Your task to perform on an android device: Open eBay Image 0: 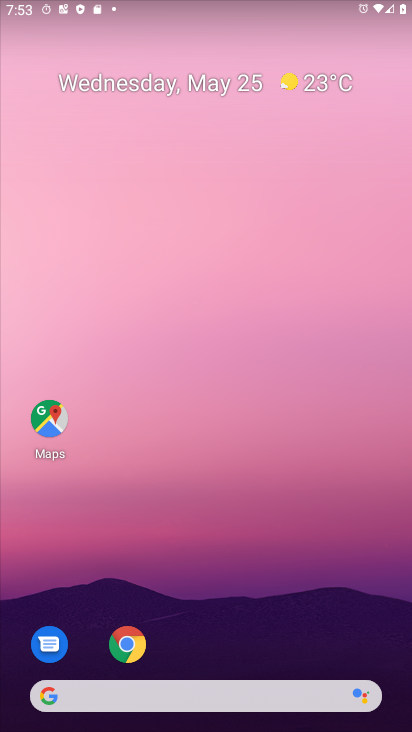
Step 0: press home button
Your task to perform on an android device: Open eBay Image 1: 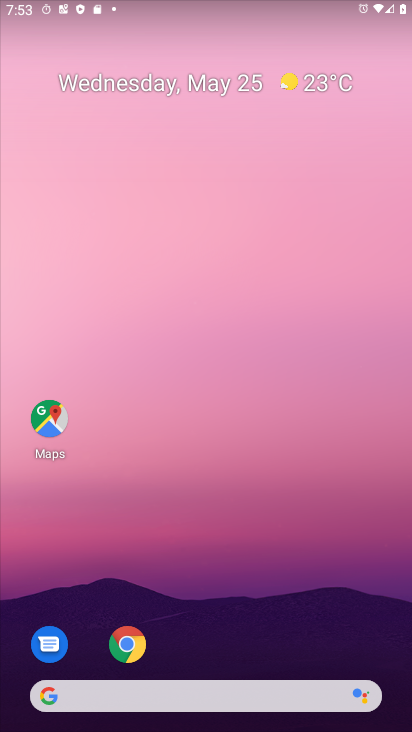
Step 1: drag from (234, 703) to (127, 124)
Your task to perform on an android device: Open eBay Image 2: 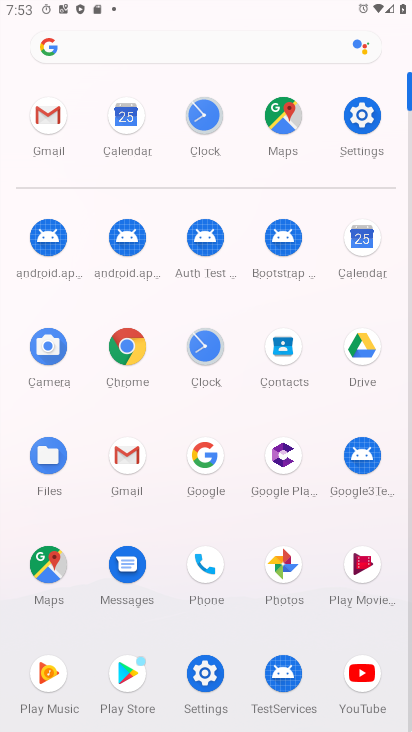
Step 2: click (129, 343)
Your task to perform on an android device: Open eBay Image 3: 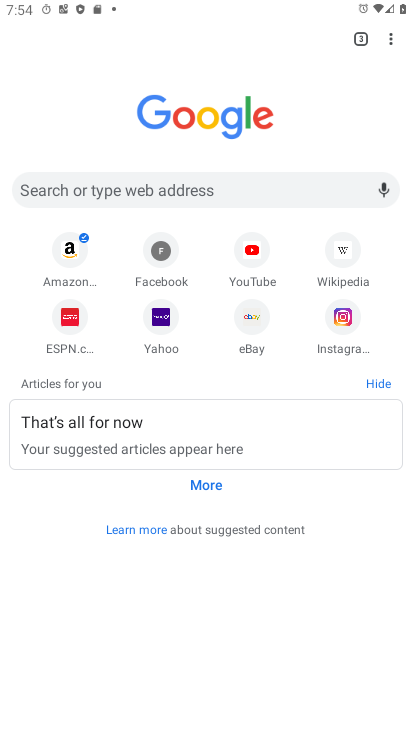
Step 3: click (252, 331)
Your task to perform on an android device: Open eBay Image 4: 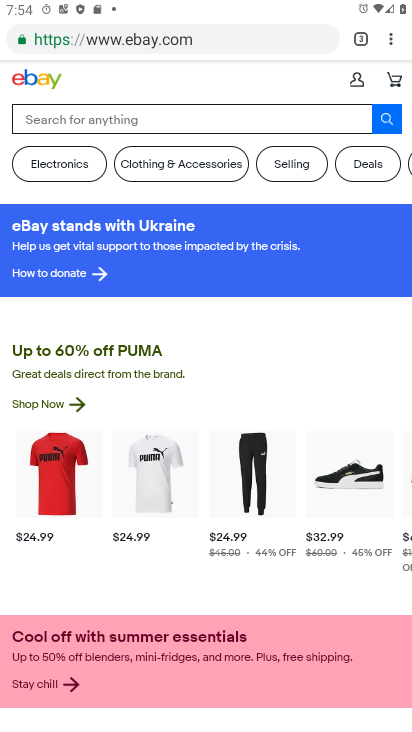
Step 4: task complete